Your task to perform on an android device: Search for flights from Barcelona to Mexico city Image 0: 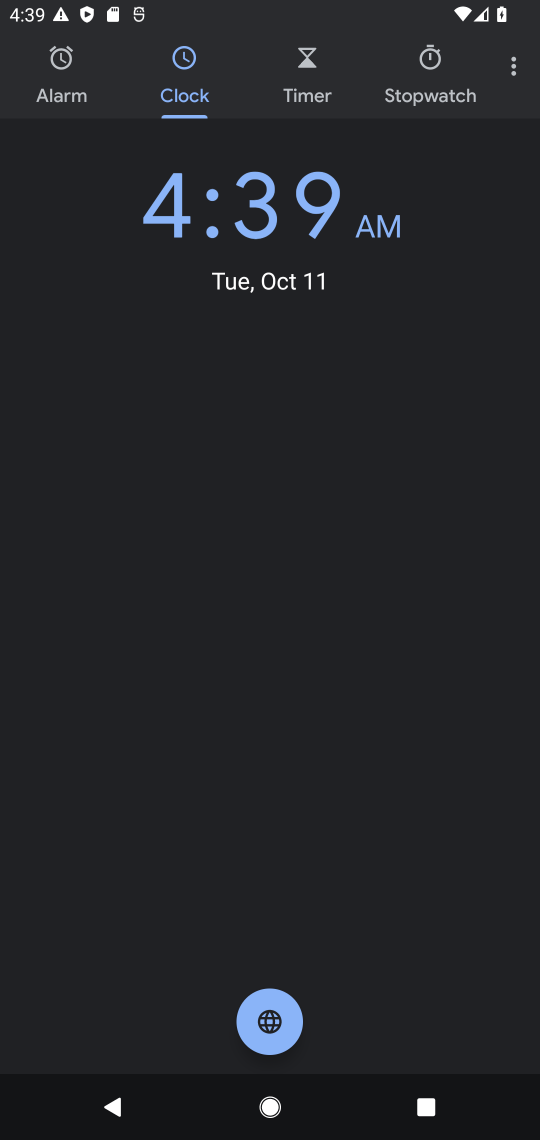
Step 0: press home button
Your task to perform on an android device: Search for flights from Barcelona to Mexico city Image 1: 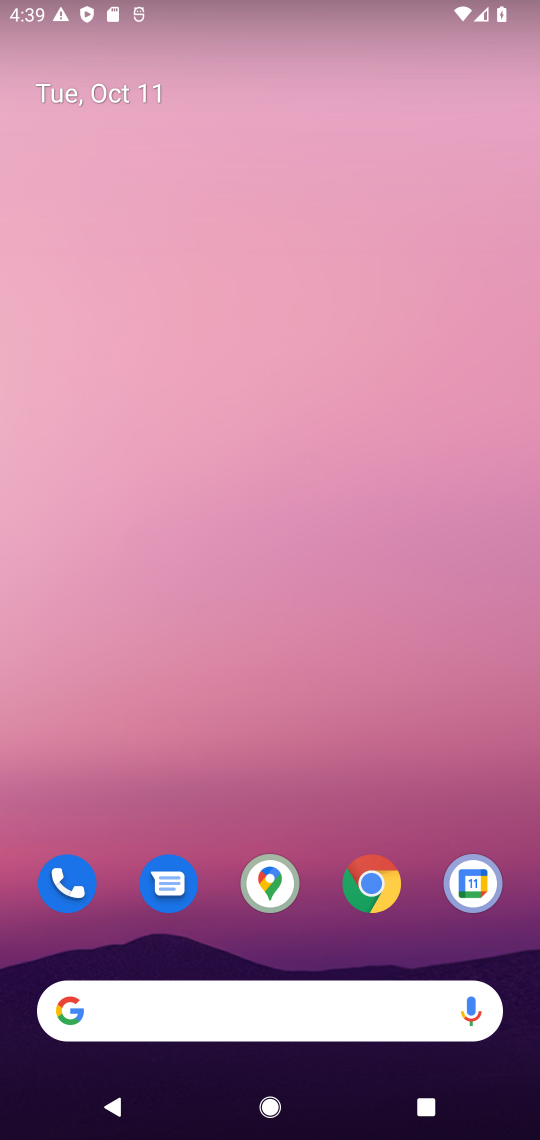
Step 1: drag from (326, 948) to (321, 106)
Your task to perform on an android device: Search for flights from Barcelona to Mexico city Image 2: 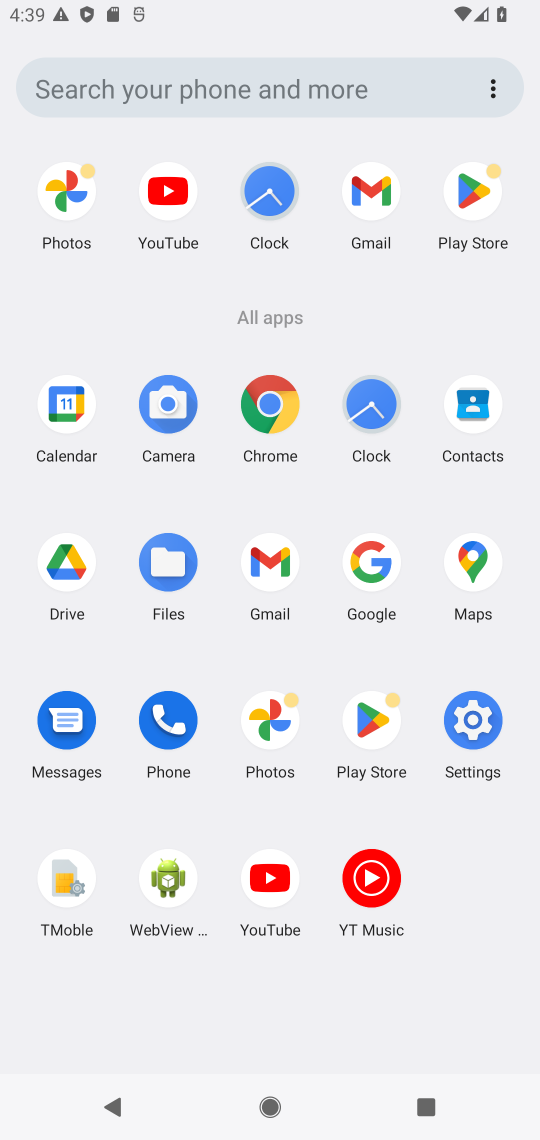
Step 2: click (264, 405)
Your task to perform on an android device: Search for flights from Barcelona to Mexico city Image 3: 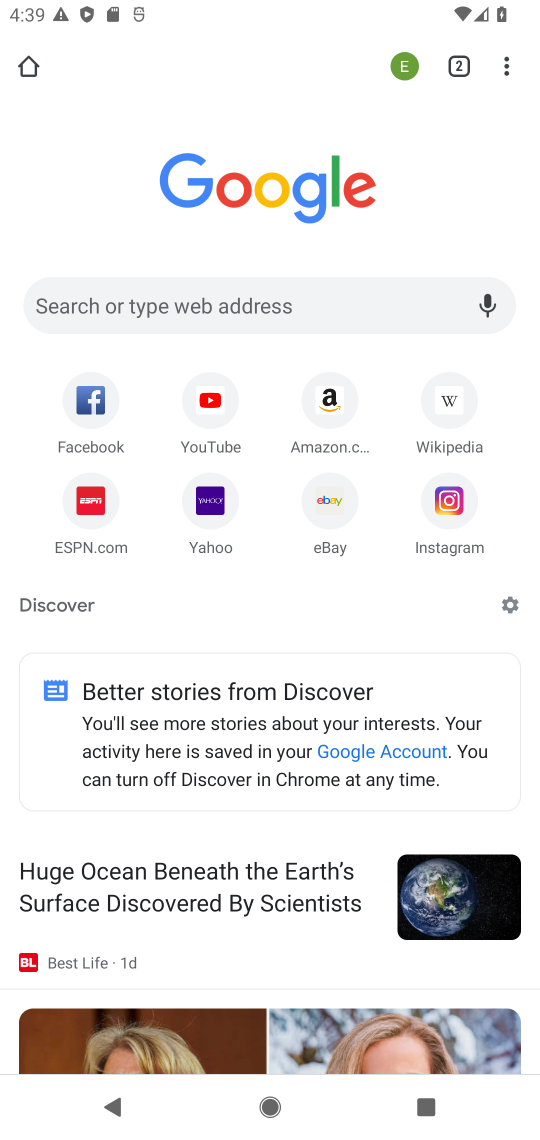
Step 3: click (258, 299)
Your task to perform on an android device: Search for flights from Barcelona to Mexico city Image 4: 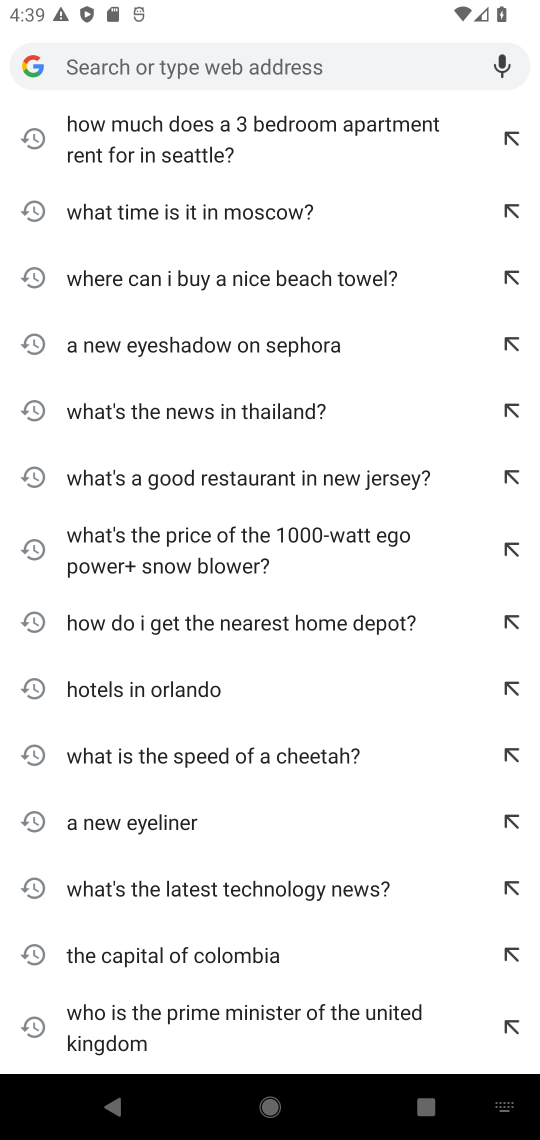
Step 4: type "flights from Barcelona to Mexico city"
Your task to perform on an android device: Search for flights from Barcelona to Mexico city Image 5: 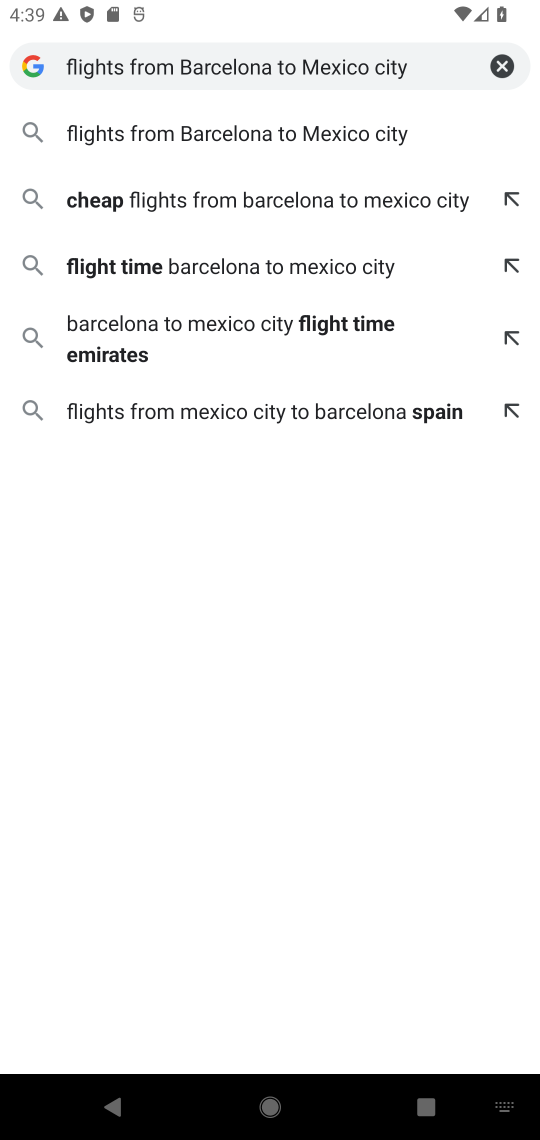
Step 5: press enter
Your task to perform on an android device: Search for flights from Barcelona to Mexico city Image 6: 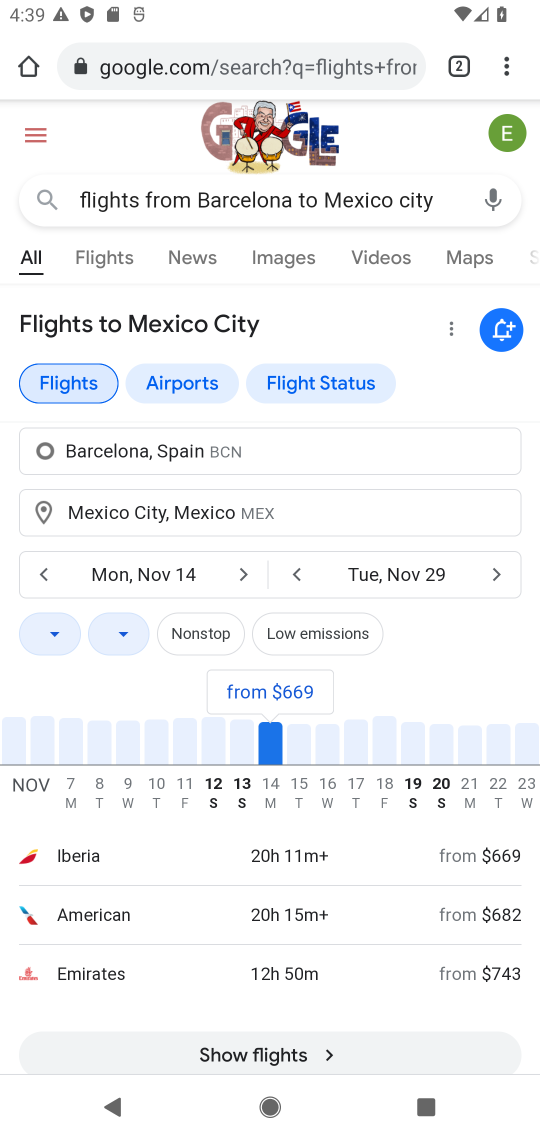
Step 6: task complete